Your task to perform on an android device: Go to CNN.com Image 0: 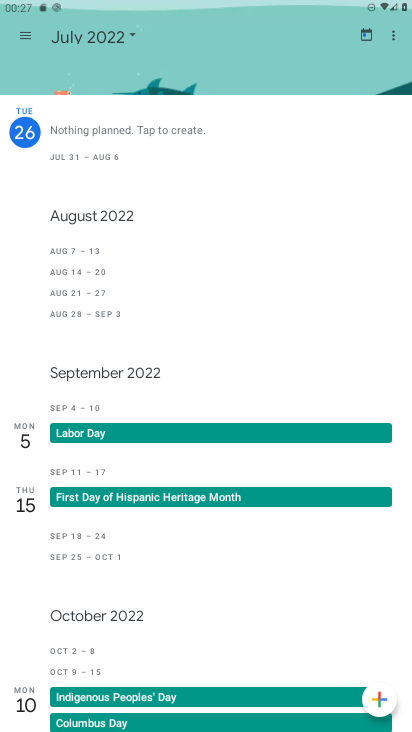
Step 0: press home button
Your task to perform on an android device: Go to CNN.com Image 1: 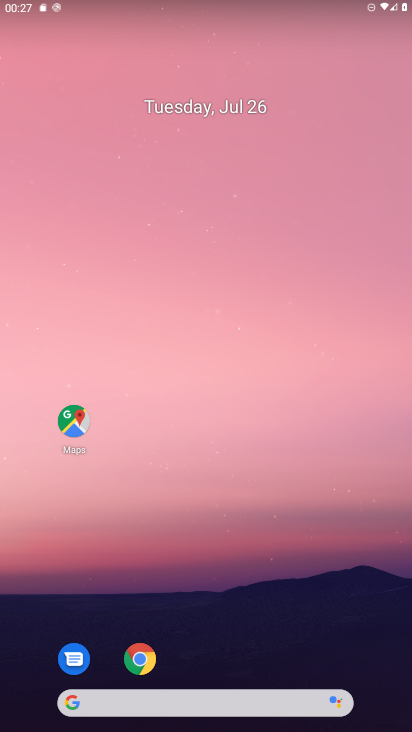
Step 1: click (144, 651)
Your task to perform on an android device: Go to CNN.com Image 2: 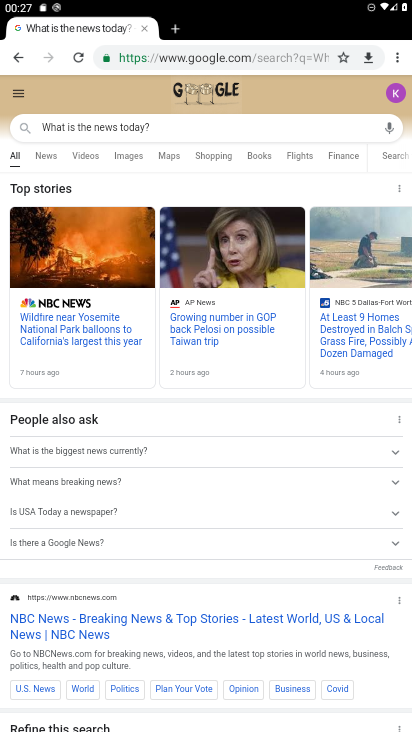
Step 2: click (198, 57)
Your task to perform on an android device: Go to CNN.com Image 3: 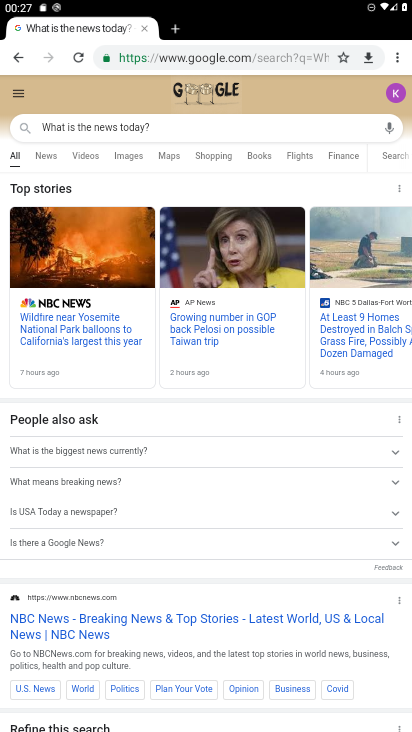
Step 3: click (210, 44)
Your task to perform on an android device: Go to CNN.com Image 4: 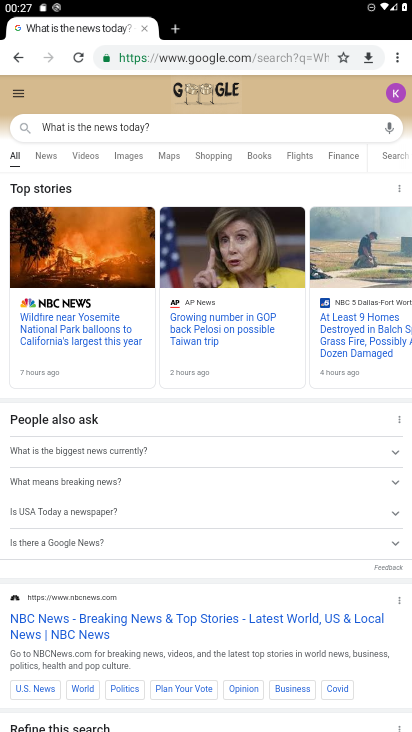
Step 4: click (212, 51)
Your task to perform on an android device: Go to CNN.com Image 5: 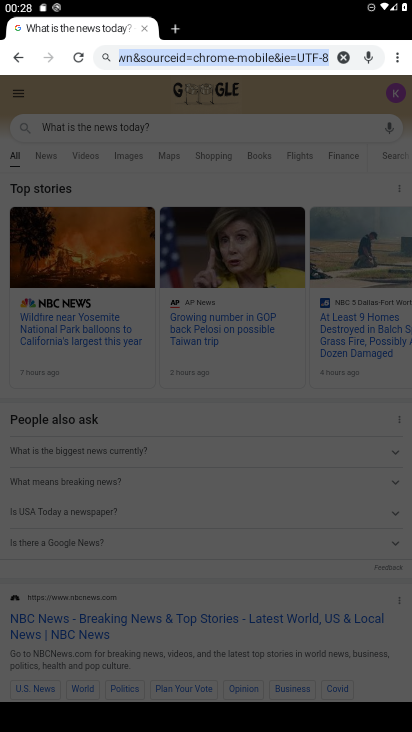
Step 5: type "CNN.com"
Your task to perform on an android device: Go to CNN.com Image 6: 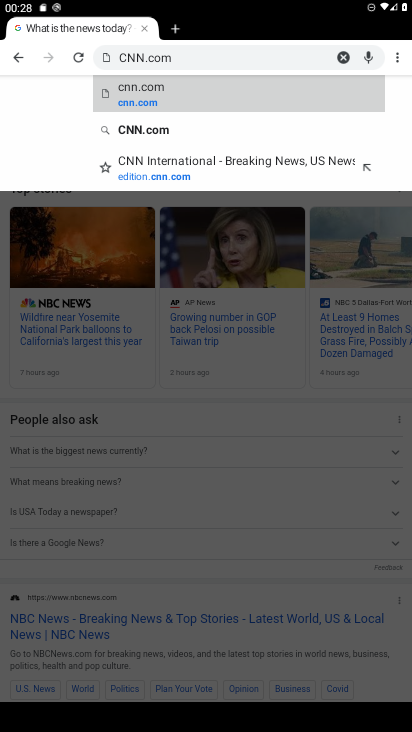
Step 6: click (151, 101)
Your task to perform on an android device: Go to CNN.com Image 7: 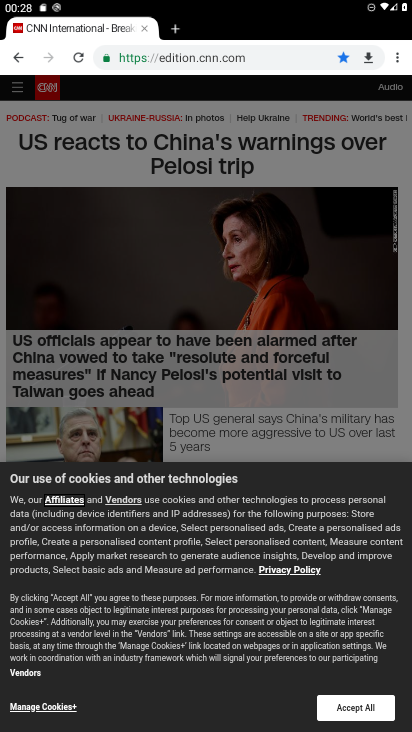
Step 7: task complete